Your task to perform on an android device: turn off notifications in google photos Image 0: 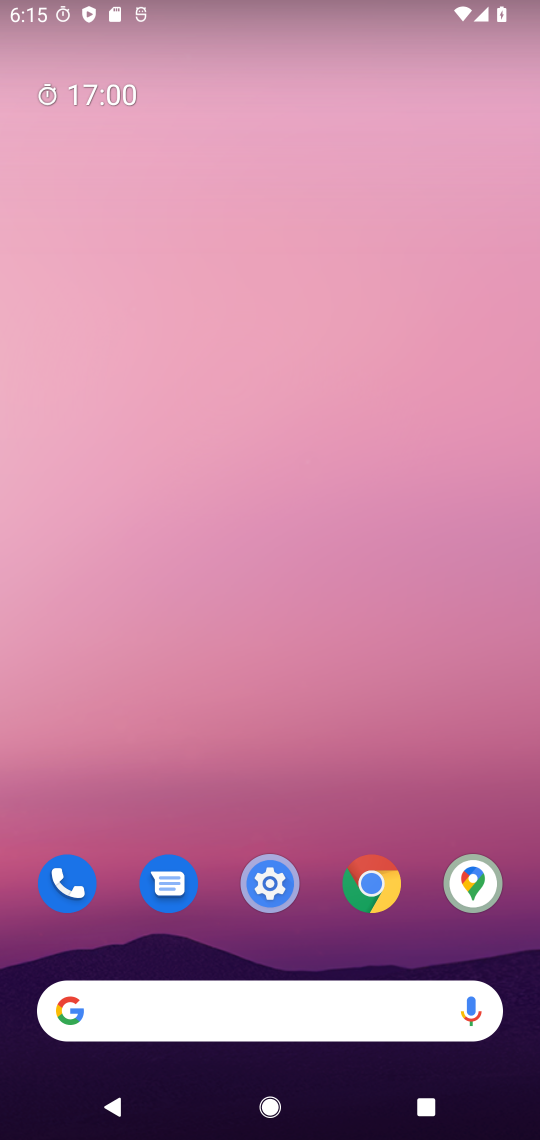
Step 0: drag from (241, 716) to (241, 34)
Your task to perform on an android device: turn off notifications in google photos Image 1: 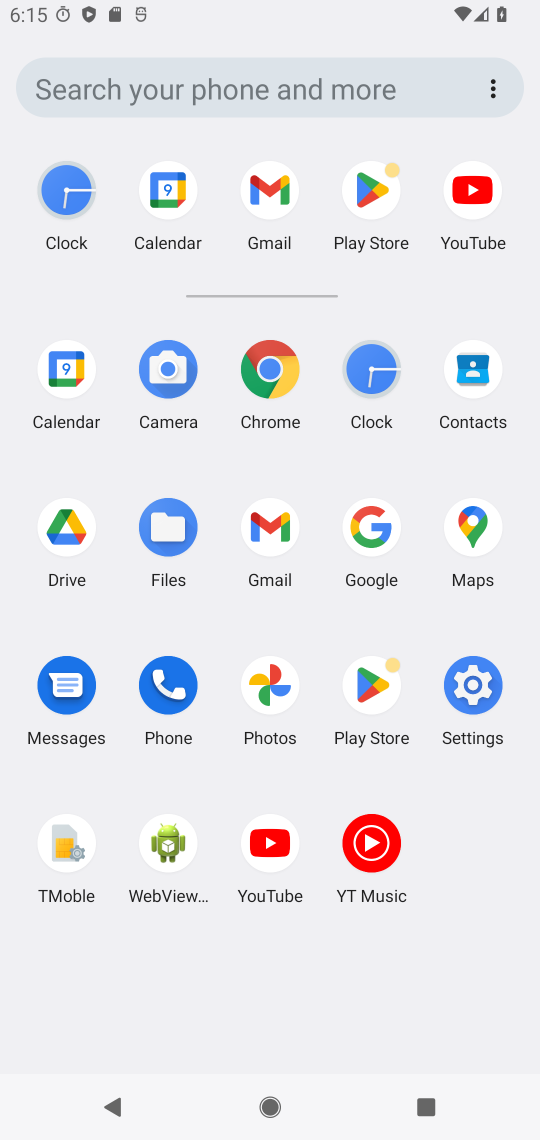
Step 1: click (278, 672)
Your task to perform on an android device: turn off notifications in google photos Image 2: 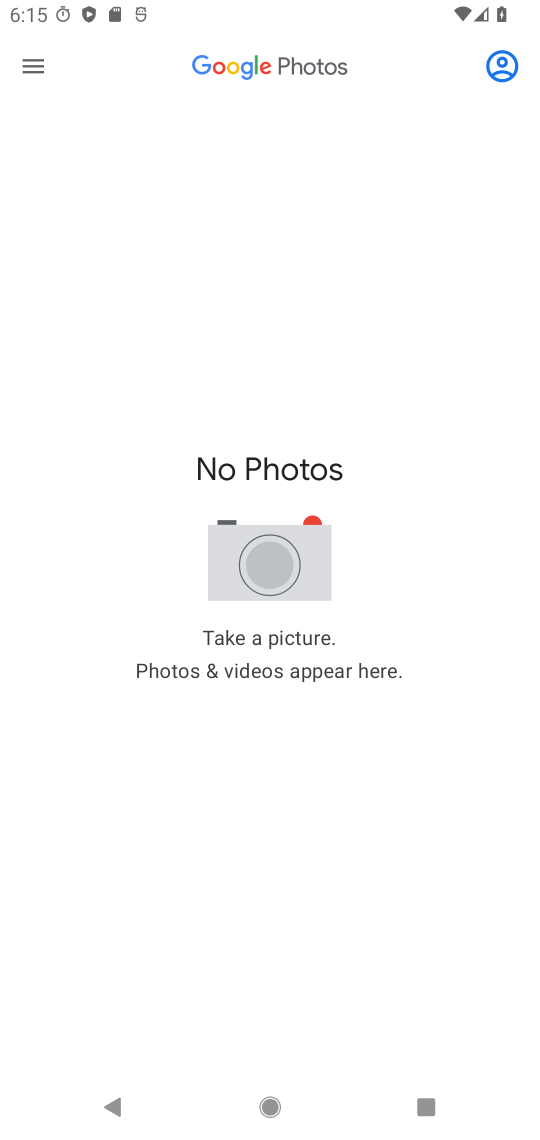
Step 2: click (43, 62)
Your task to perform on an android device: turn off notifications in google photos Image 3: 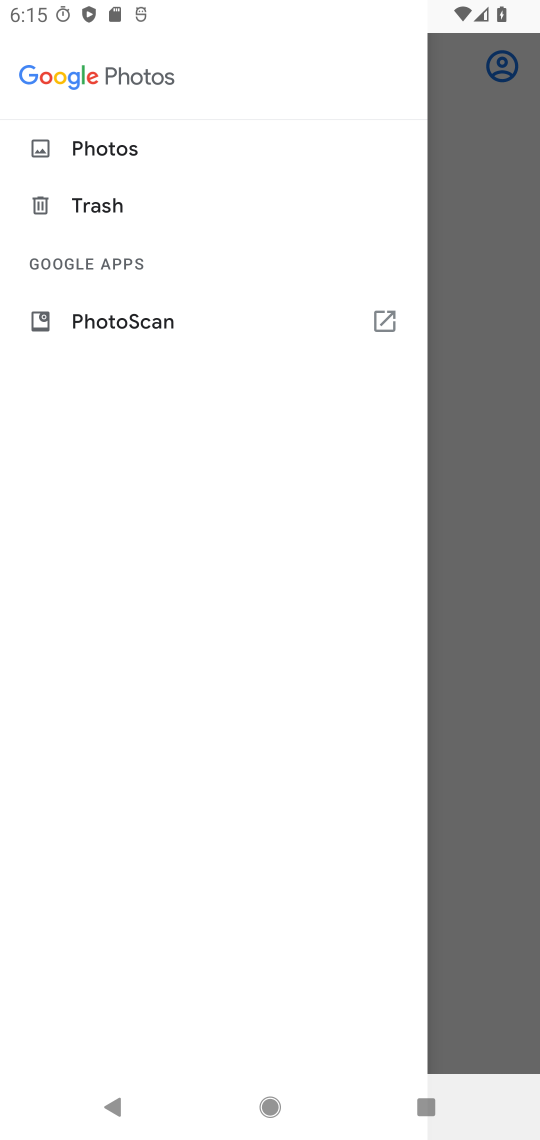
Step 3: click (488, 439)
Your task to perform on an android device: turn off notifications in google photos Image 4: 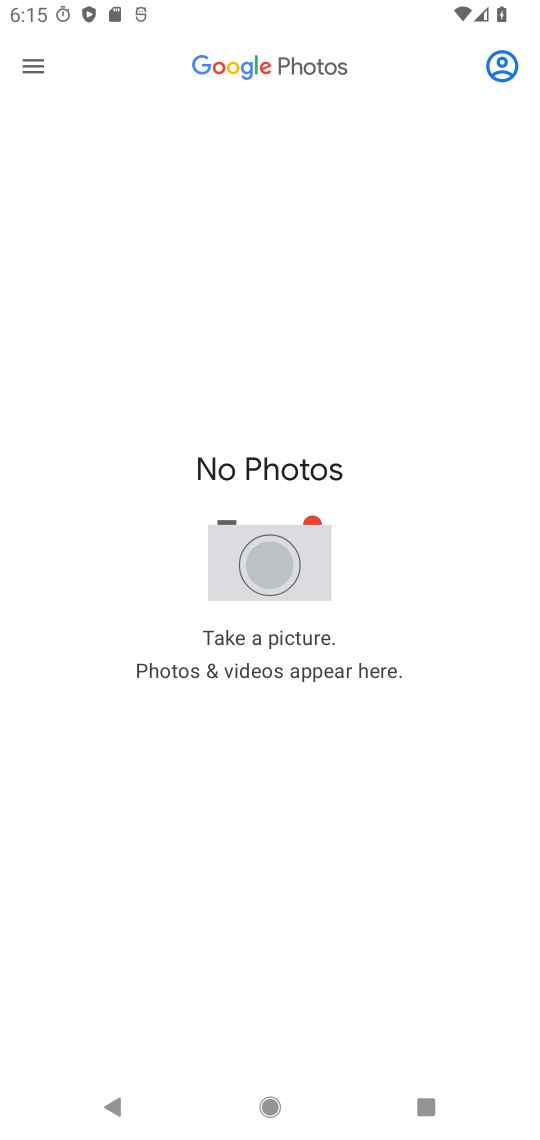
Step 4: click (502, 81)
Your task to perform on an android device: turn off notifications in google photos Image 5: 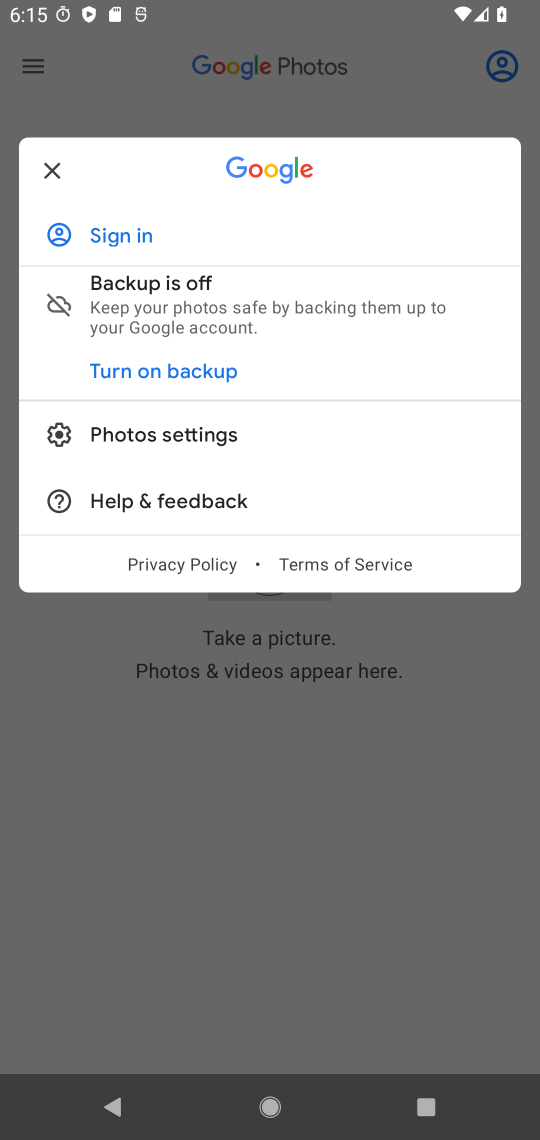
Step 5: click (168, 439)
Your task to perform on an android device: turn off notifications in google photos Image 6: 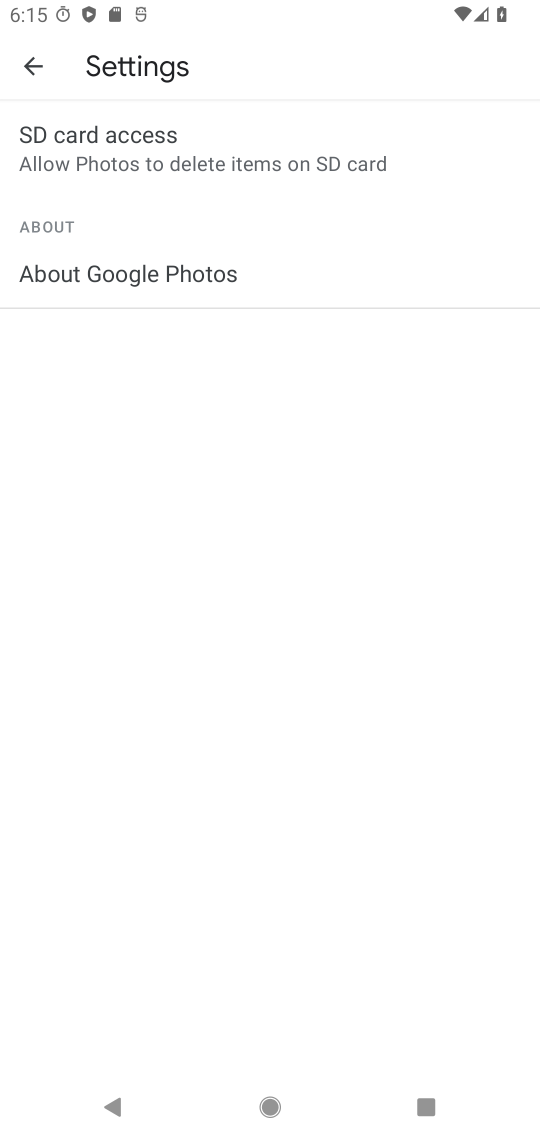
Step 6: task complete